Your task to perform on an android device: empty trash in google photos Image 0: 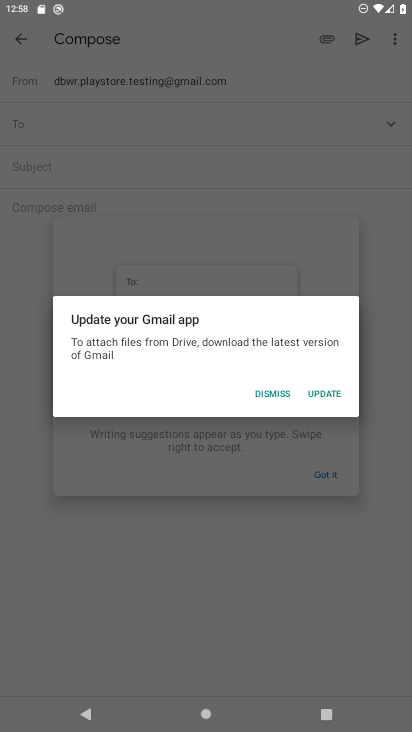
Step 0: press home button
Your task to perform on an android device: empty trash in google photos Image 1: 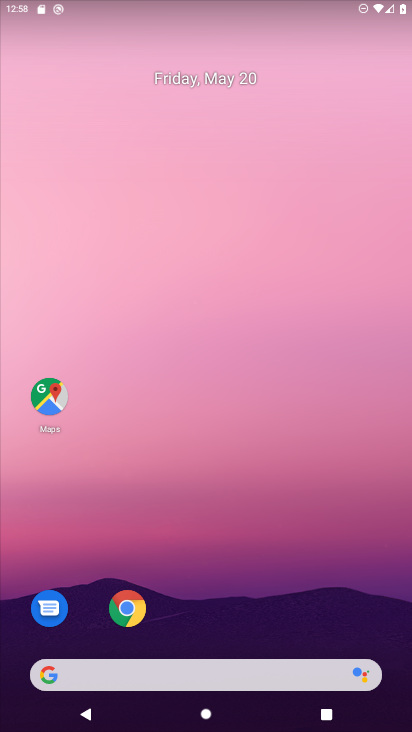
Step 1: drag from (278, 618) to (323, 1)
Your task to perform on an android device: empty trash in google photos Image 2: 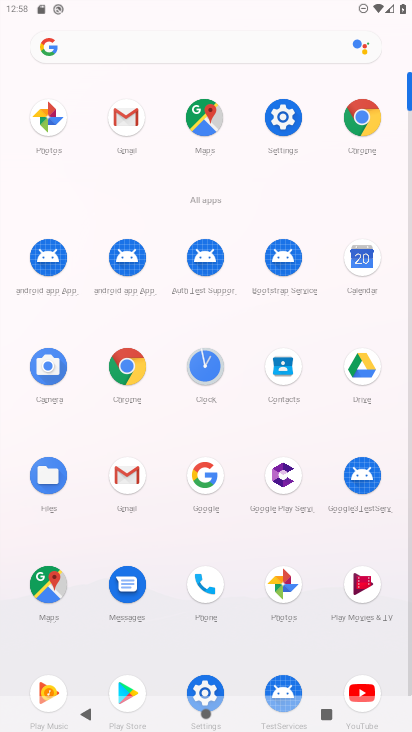
Step 2: click (299, 607)
Your task to perform on an android device: empty trash in google photos Image 3: 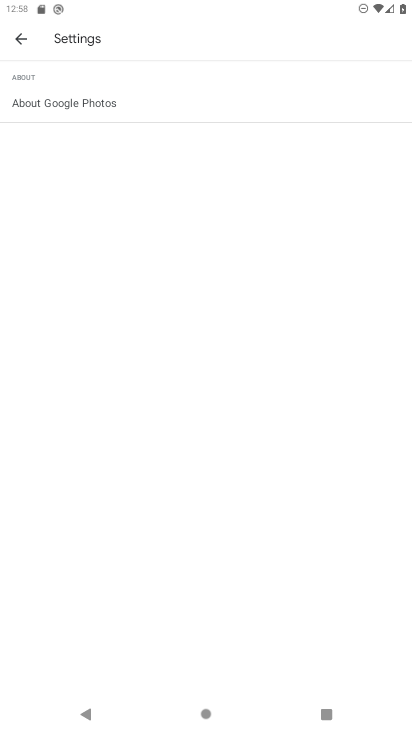
Step 3: click (23, 37)
Your task to perform on an android device: empty trash in google photos Image 4: 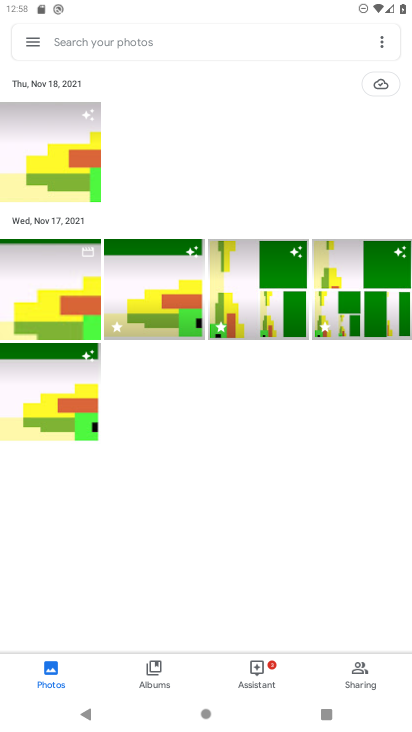
Step 4: click (26, 42)
Your task to perform on an android device: empty trash in google photos Image 5: 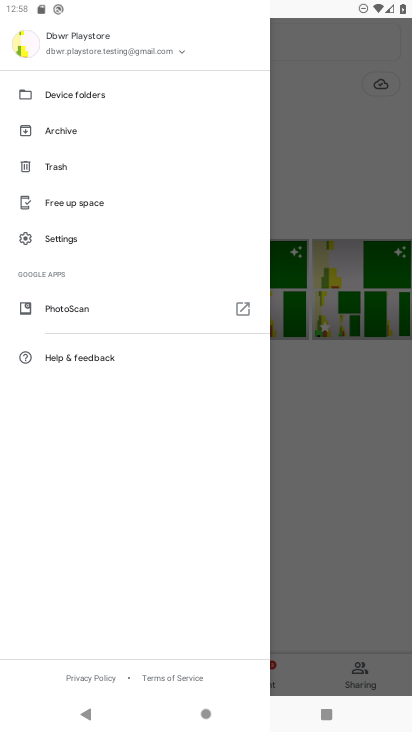
Step 5: click (56, 162)
Your task to perform on an android device: empty trash in google photos Image 6: 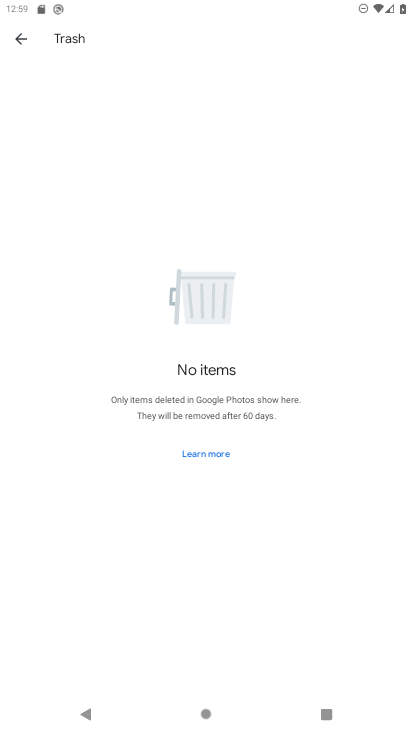
Step 6: task complete